Your task to perform on an android device: Search for Italian restaurants on Maps Image 0: 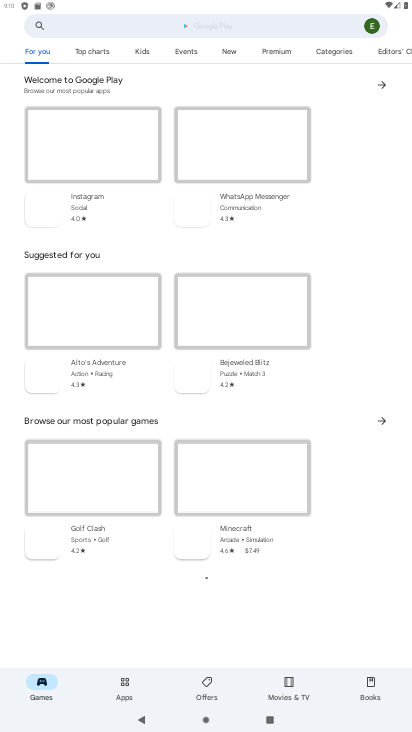
Step 0: press home button
Your task to perform on an android device: Search for Italian restaurants on Maps Image 1: 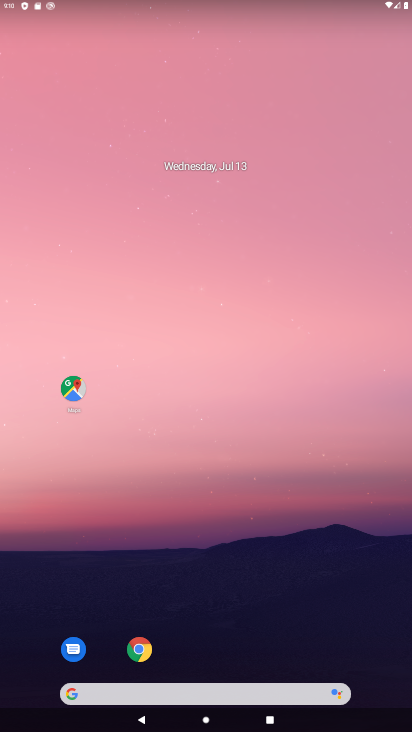
Step 1: drag from (212, 696) to (284, 98)
Your task to perform on an android device: Search for Italian restaurants on Maps Image 2: 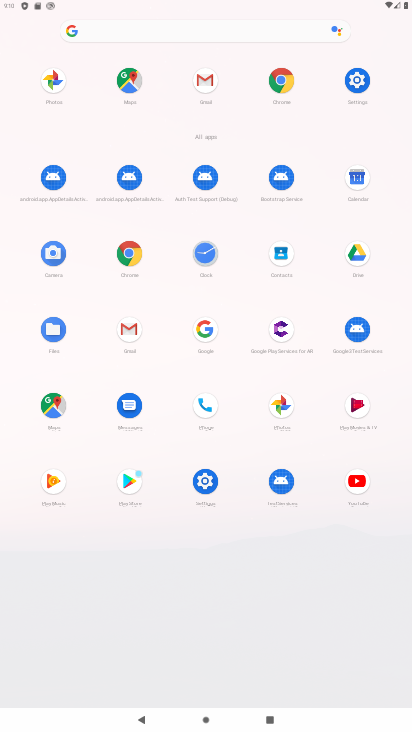
Step 2: click (66, 400)
Your task to perform on an android device: Search for Italian restaurants on Maps Image 3: 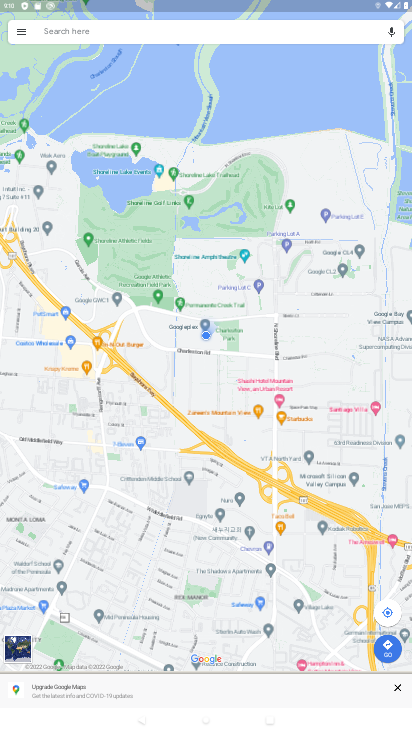
Step 3: click (114, 38)
Your task to perform on an android device: Search for Italian restaurants on Maps Image 4: 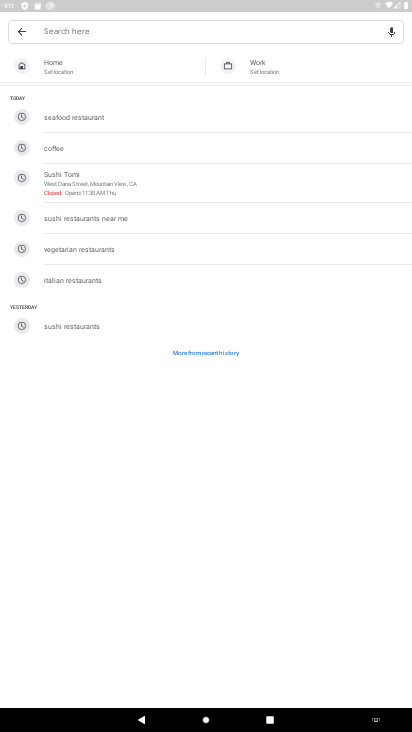
Step 4: type "Italian restaurants"
Your task to perform on an android device: Search for Italian restaurants on Maps Image 5: 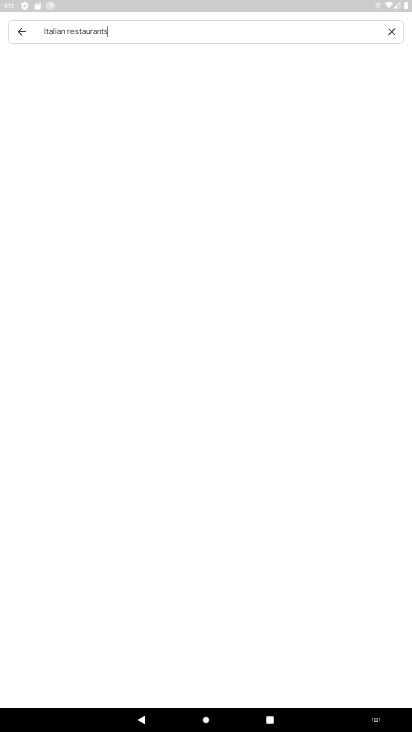
Step 5: press enter
Your task to perform on an android device: Search for Italian restaurants on Maps Image 6: 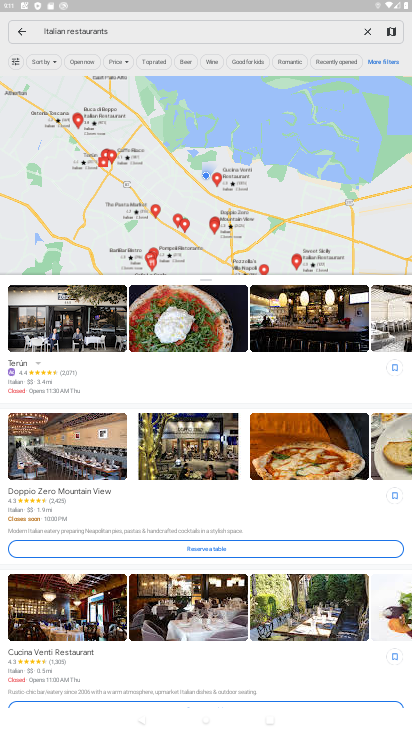
Step 6: task complete